Your task to perform on an android device: Is it going to rain this weekend? Image 0: 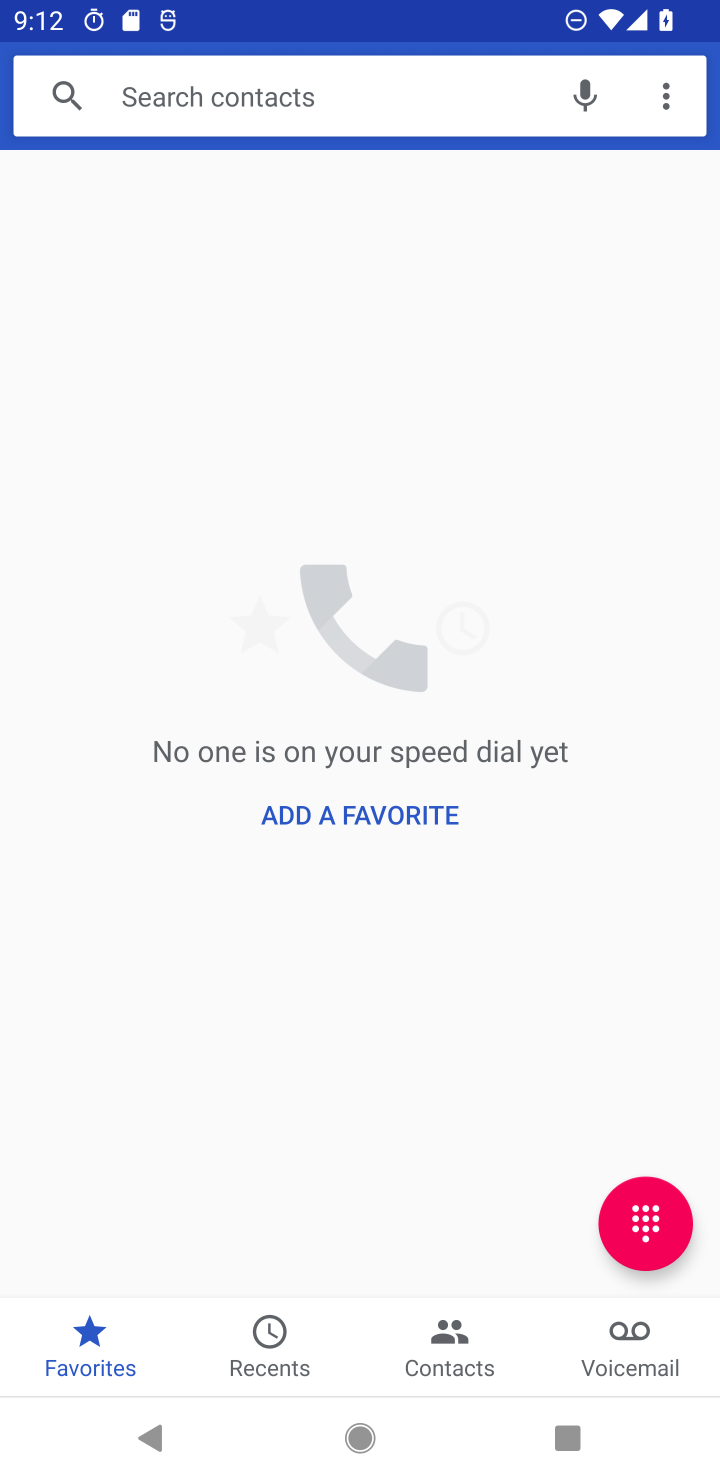
Step 0: press home button
Your task to perform on an android device: Is it going to rain this weekend? Image 1: 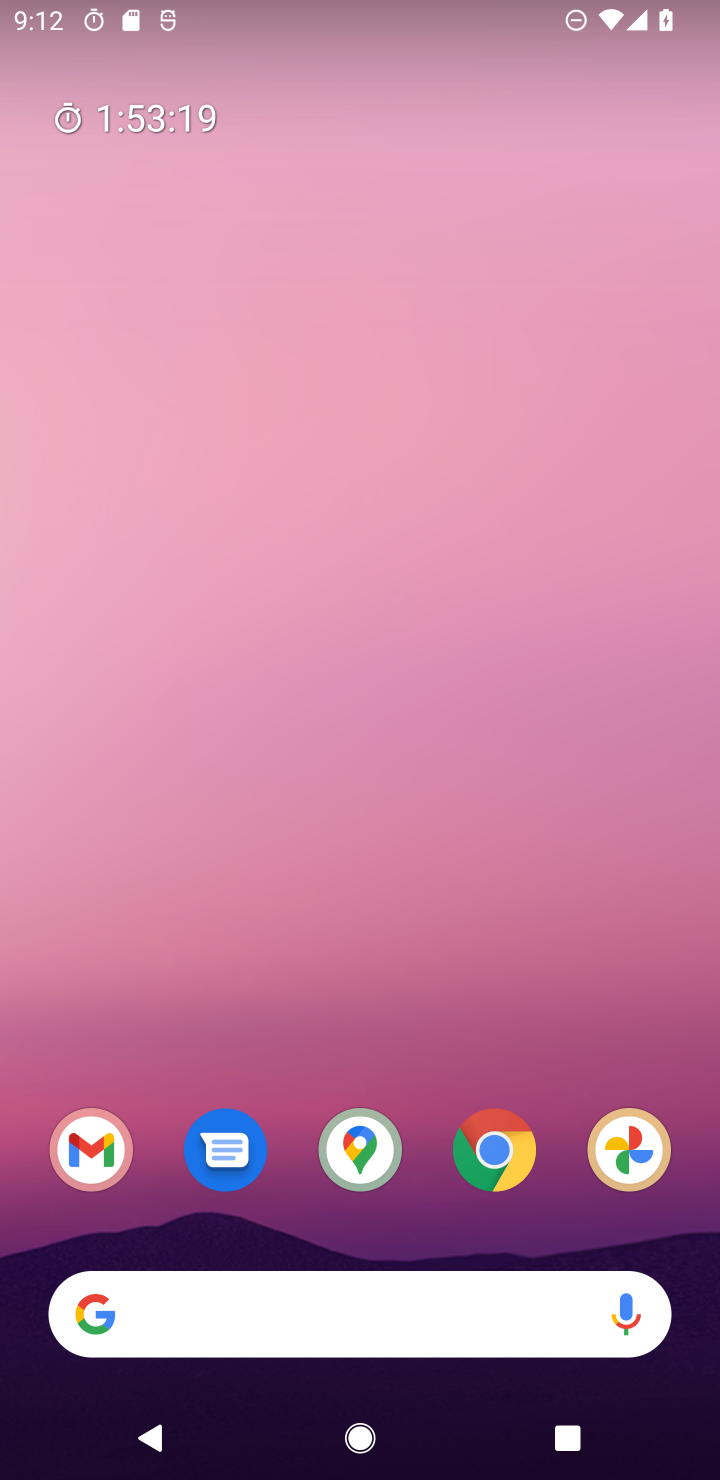
Step 1: drag from (517, 1286) to (587, 0)
Your task to perform on an android device: Is it going to rain this weekend? Image 2: 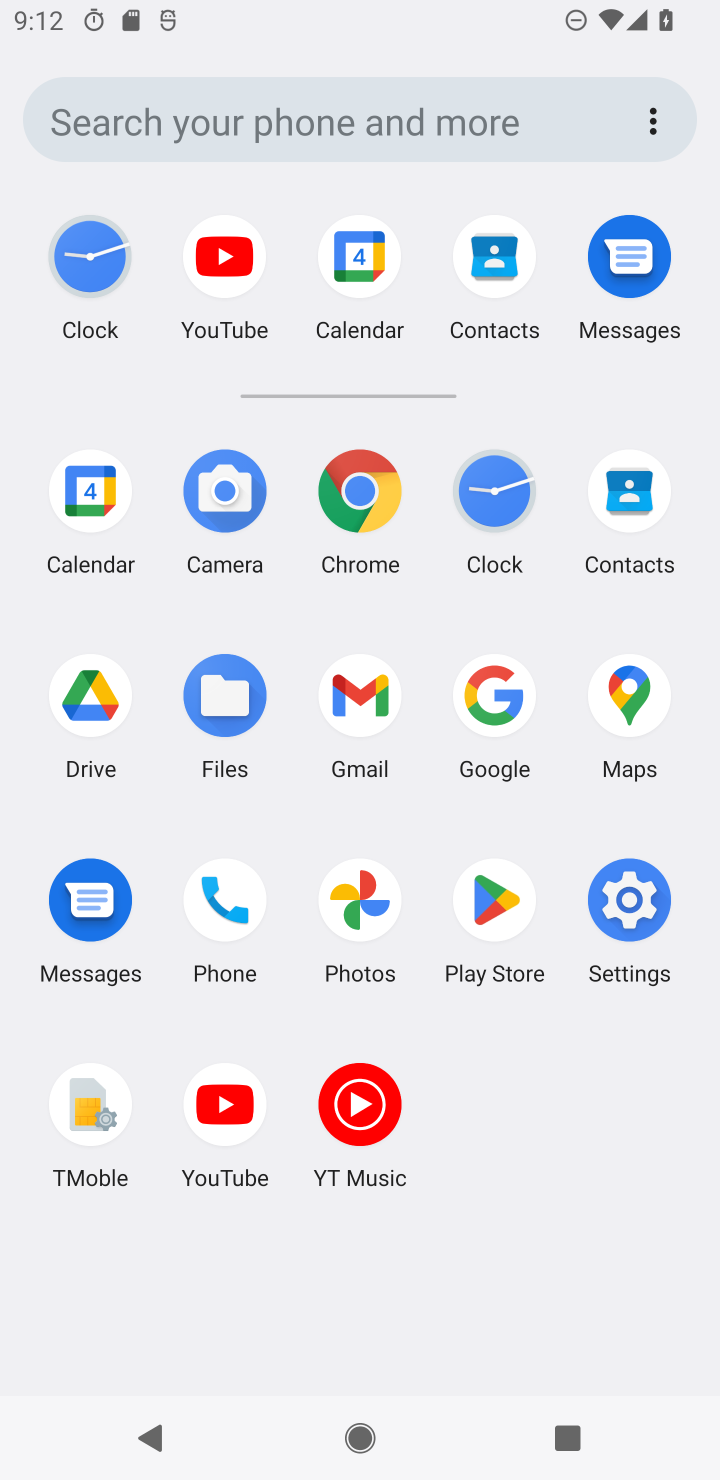
Step 2: click (382, 459)
Your task to perform on an android device: Is it going to rain this weekend? Image 3: 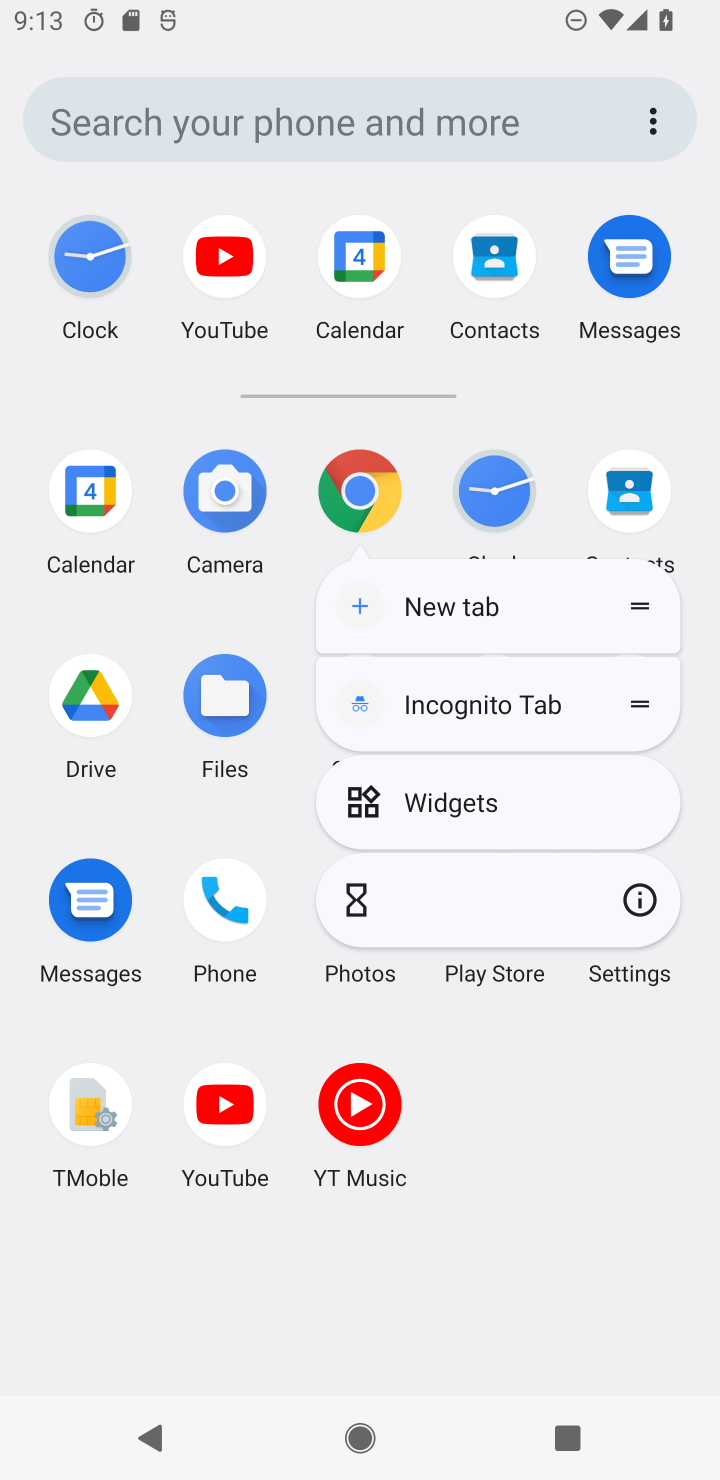
Step 3: click (389, 487)
Your task to perform on an android device: Is it going to rain this weekend? Image 4: 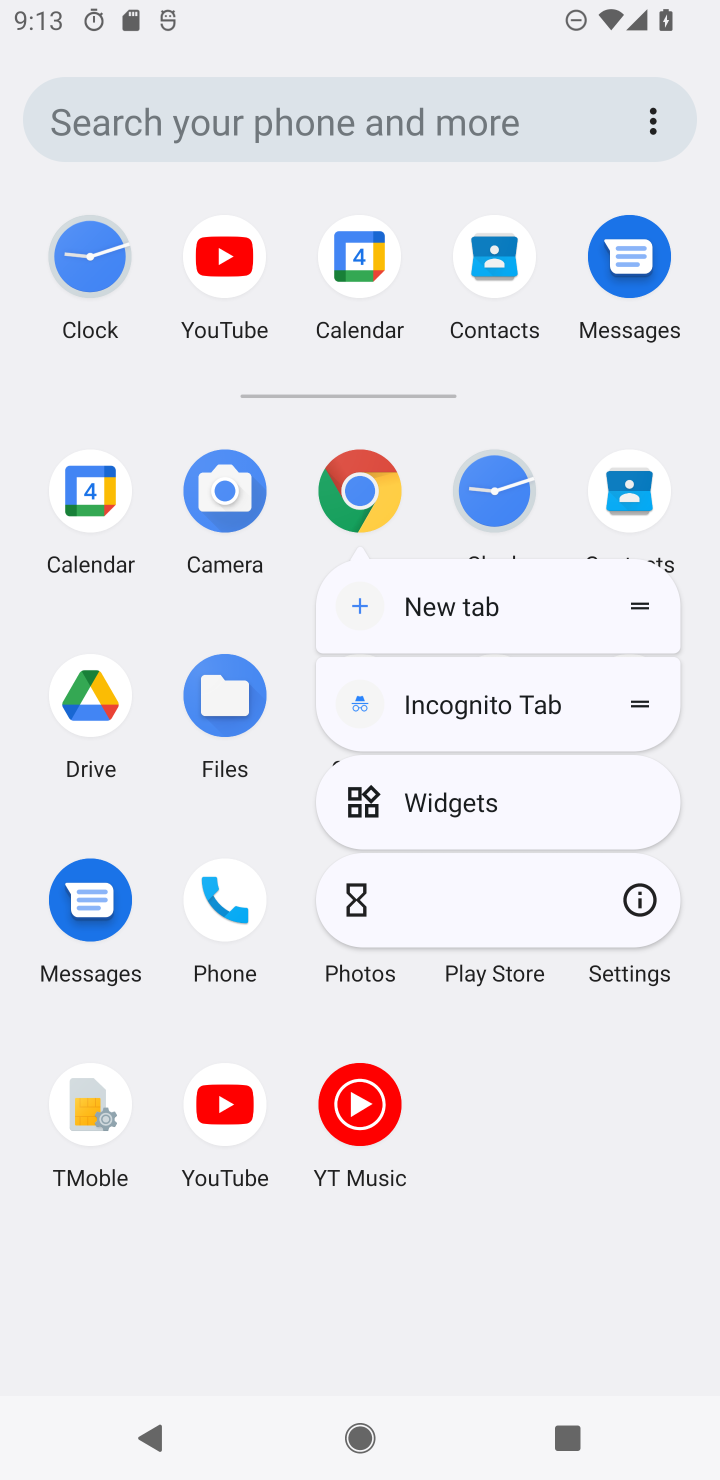
Step 4: click (389, 487)
Your task to perform on an android device: Is it going to rain this weekend? Image 5: 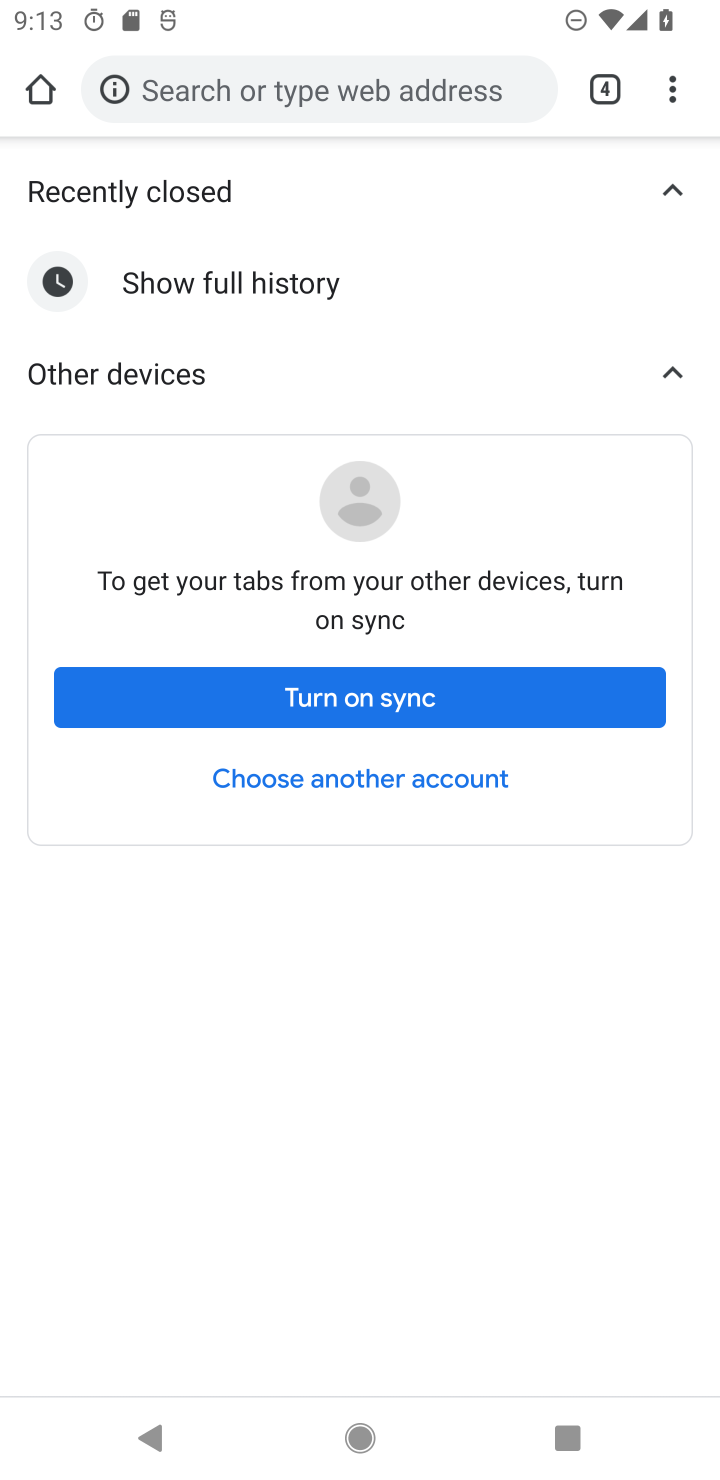
Step 5: click (397, 88)
Your task to perform on an android device: Is it going to rain this weekend? Image 6: 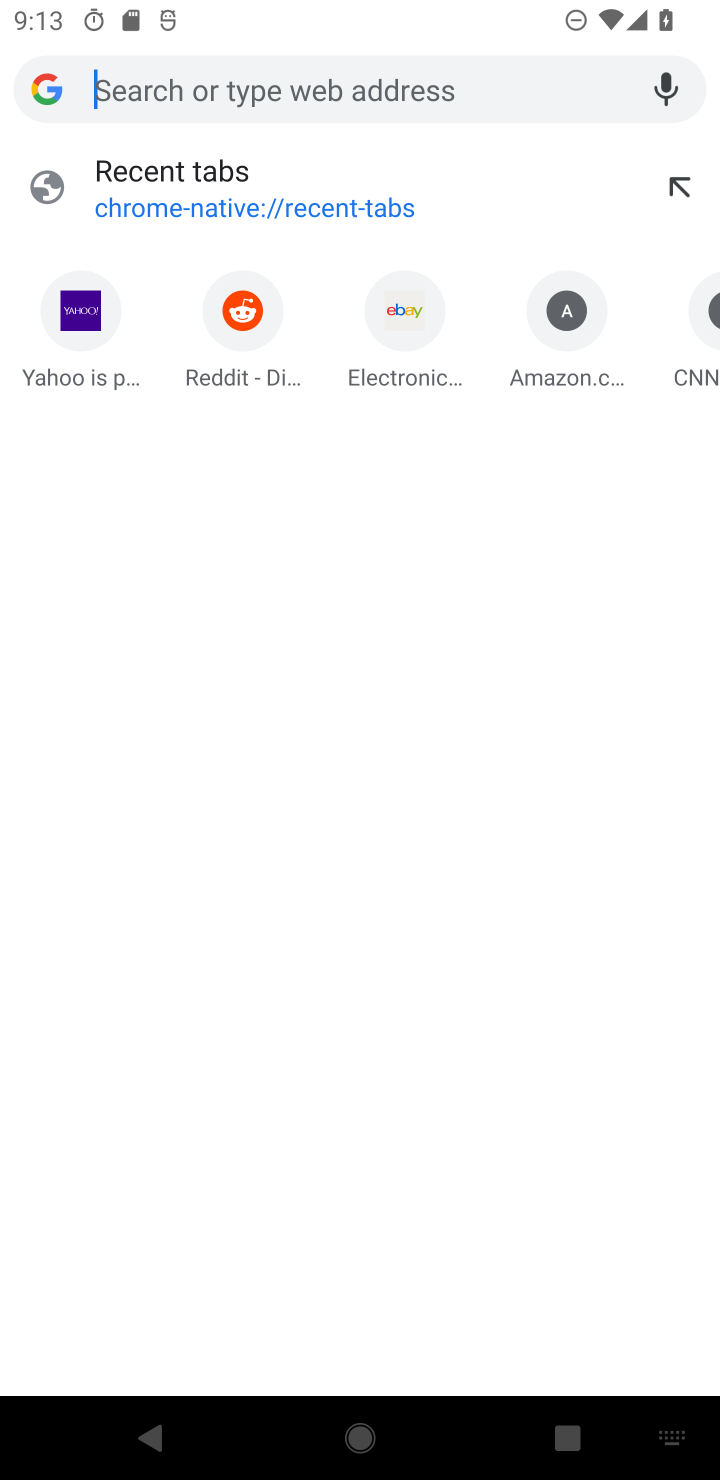
Step 6: type "is it going to rain this weekend"
Your task to perform on an android device: Is it going to rain this weekend? Image 7: 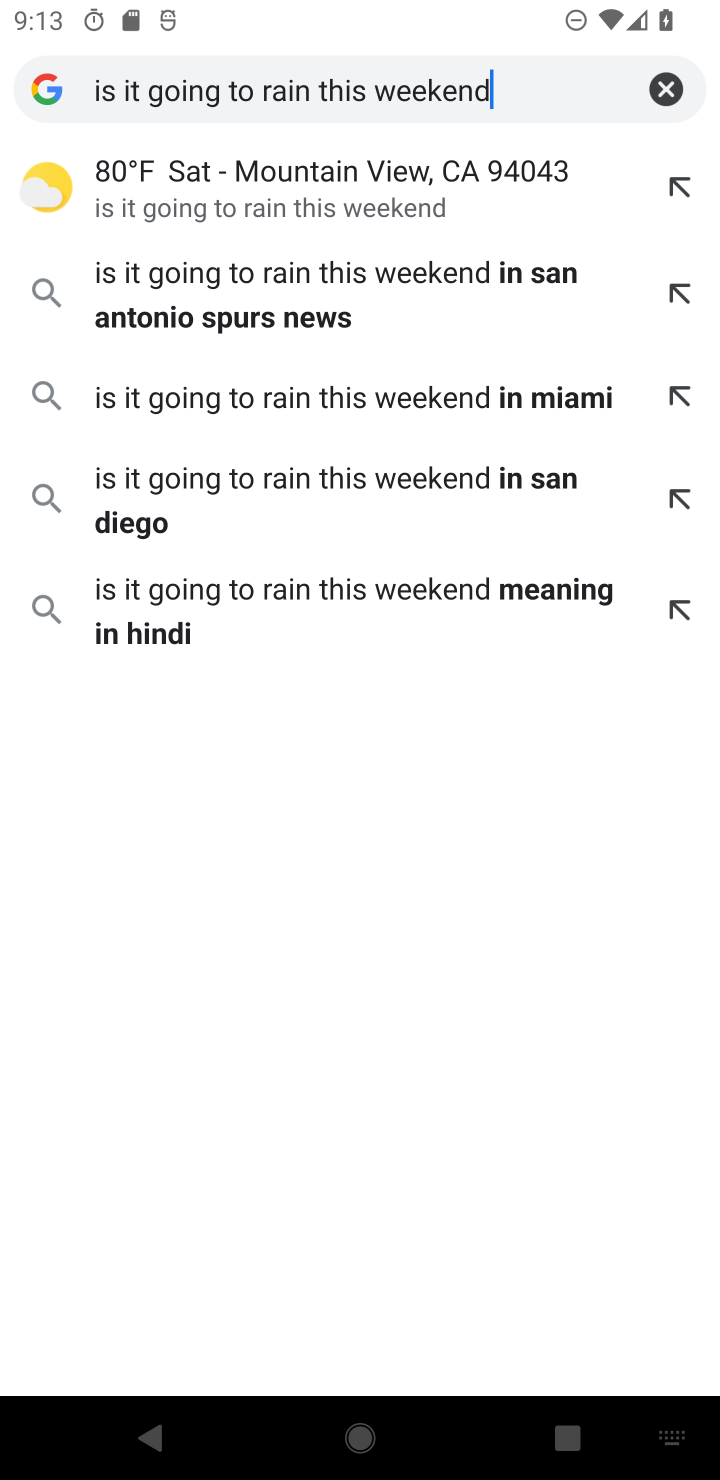
Step 7: click (452, 188)
Your task to perform on an android device: Is it going to rain this weekend? Image 8: 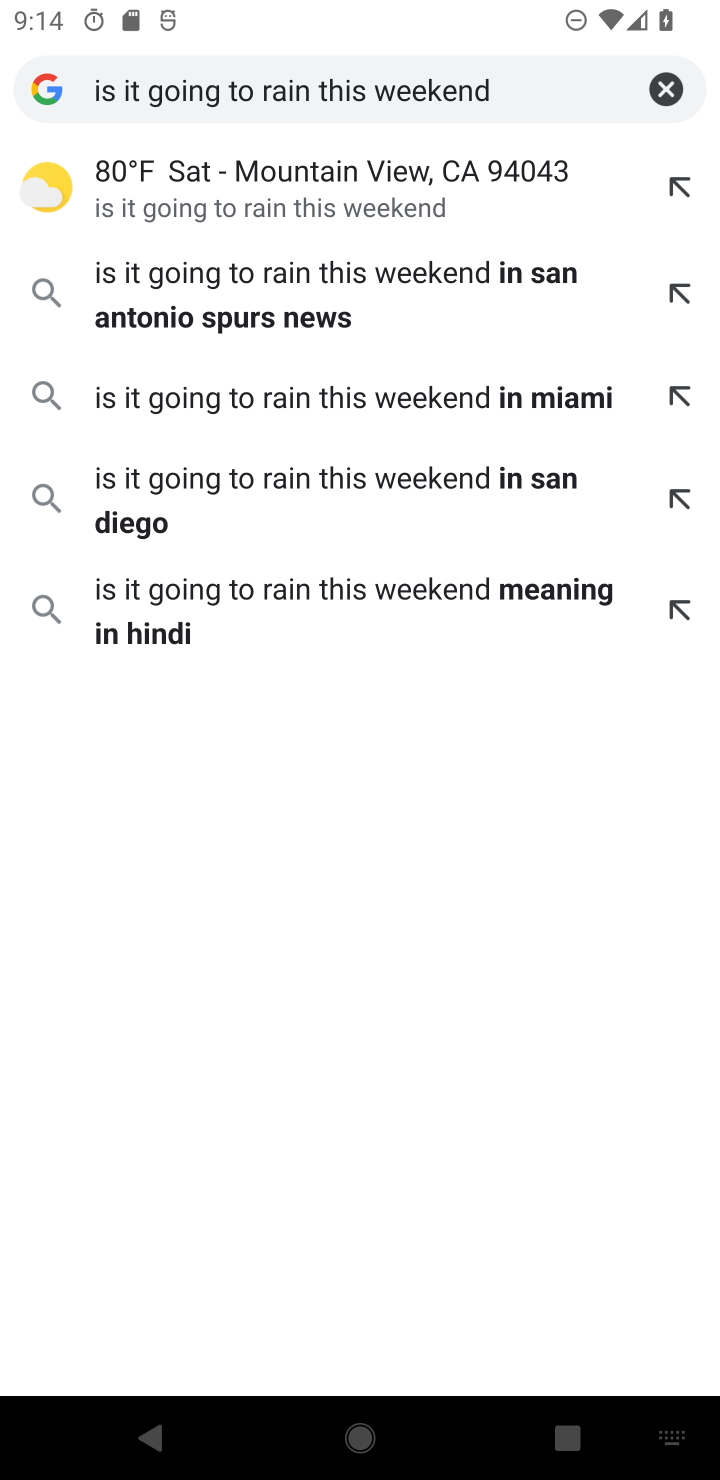
Step 8: click (449, 185)
Your task to perform on an android device: Is it going to rain this weekend? Image 9: 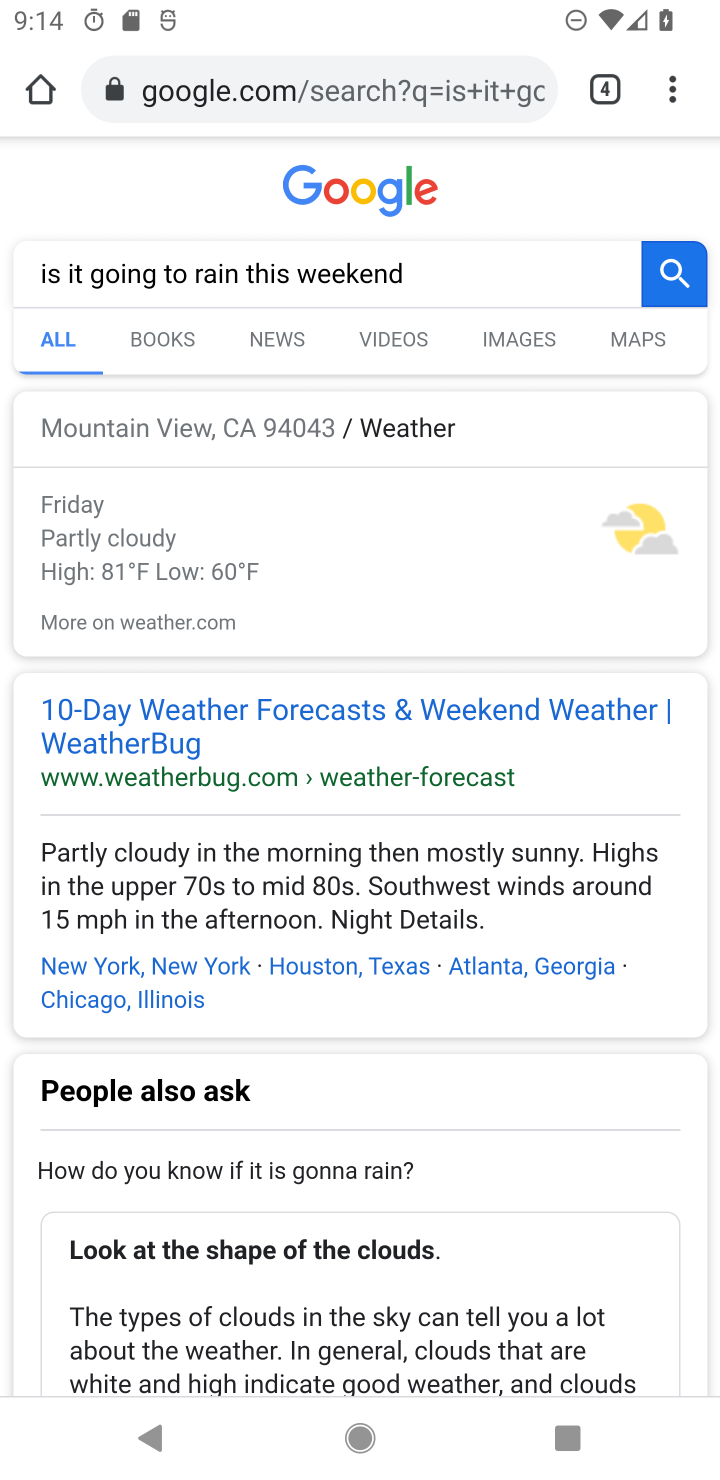
Step 9: task complete